Your task to perform on an android device: toggle show notifications on the lock screen Image 0: 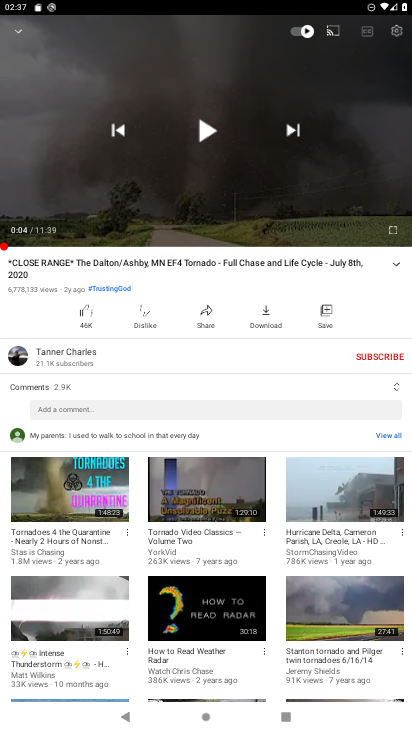
Step 0: press back button
Your task to perform on an android device: toggle show notifications on the lock screen Image 1: 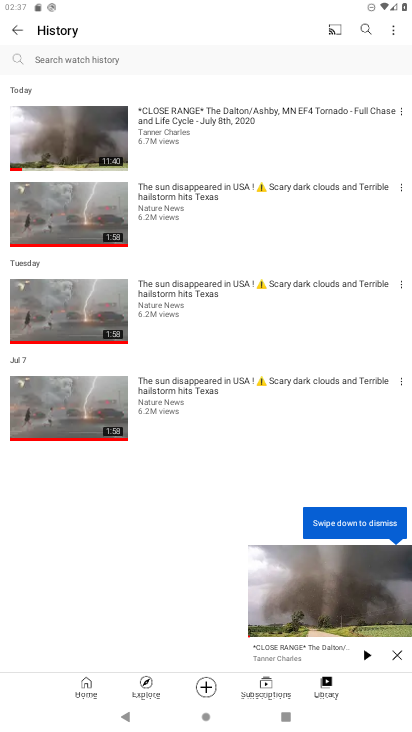
Step 1: press back button
Your task to perform on an android device: toggle show notifications on the lock screen Image 2: 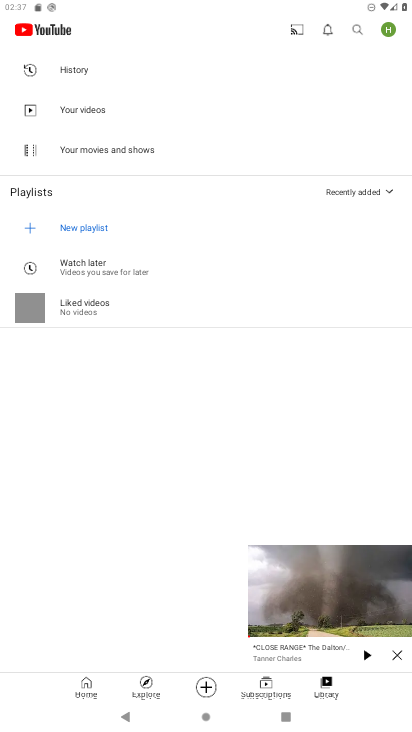
Step 2: press home button
Your task to perform on an android device: toggle show notifications on the lock screen Image 3: 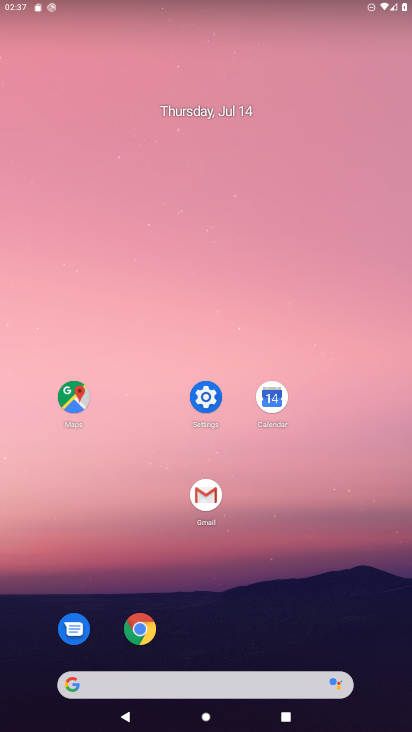
Step 3: click (206, 391)
Your task to perform on an android device: toggle show notifications on the lock screen Image 4: 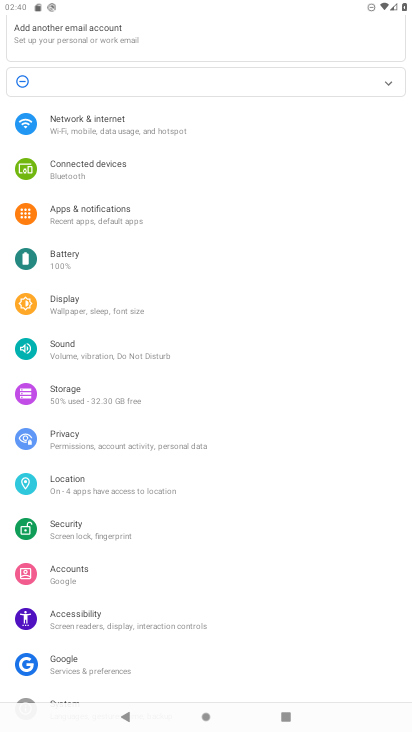
Step 4: click (73, 204)
Your task to perform on an android device: toggle show notifications on the lock screen Image 5: 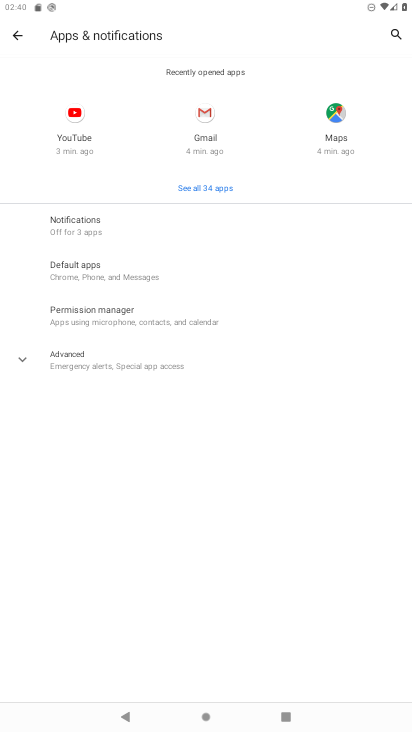
Step 5: click (55, 223)
Your task to perform on an android device: toggle show notifications on the lock screen Image 6: 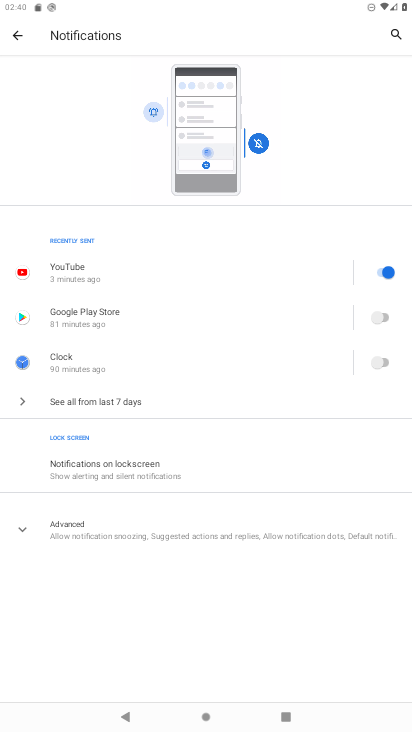
Step 6: click (87, 462)
Your task to perform on an android device: toggle show notifications on the lock screen Image 7: 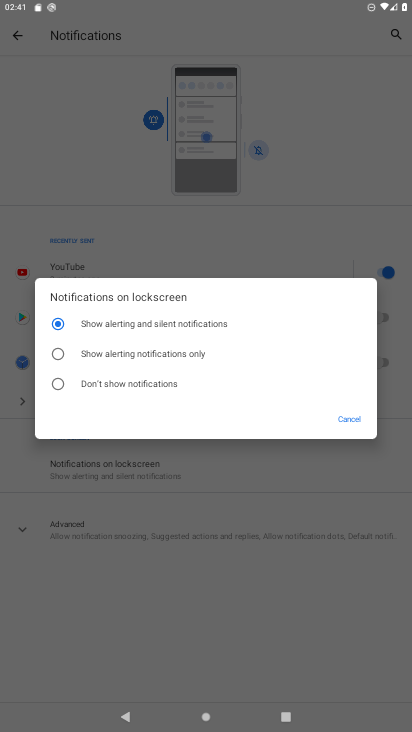
Step 7: click (62, 355)
Your task to perform on an android device: toggle show notifications on the lock screen Image 8: 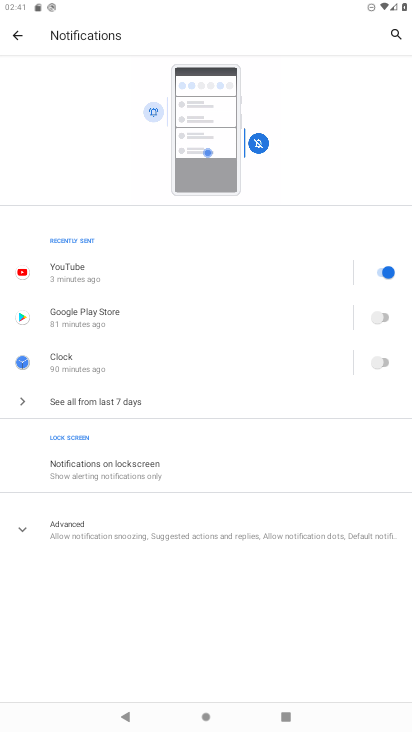
Step 8: task complete